Your task to perform on an android device: Set the phone to "Do not disturb". Image 0: 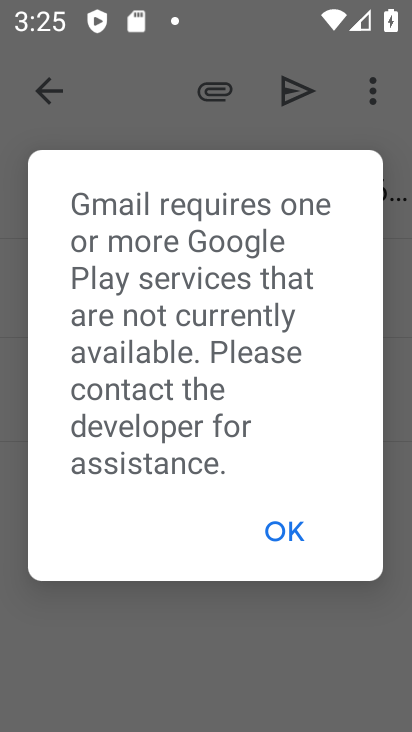
Step 0: press home button
Your task to perform on an android device: Set the phone to "Do not disturb". Image 1: 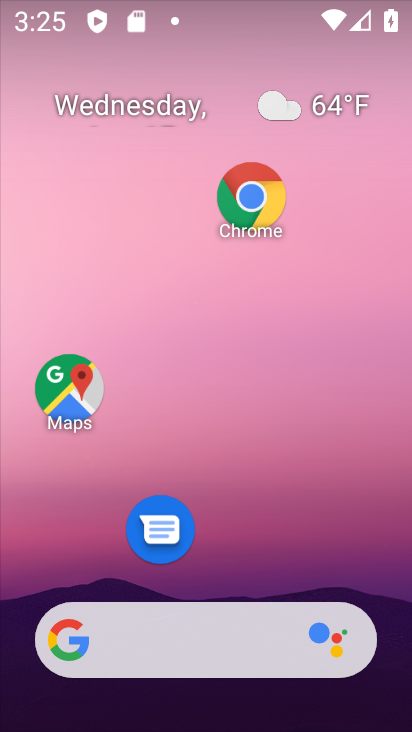
Step 1: drag from (187, 611) to (181, 182)
Your task to perform on an android device: Set the phone to "Do not disturb". Image 2: 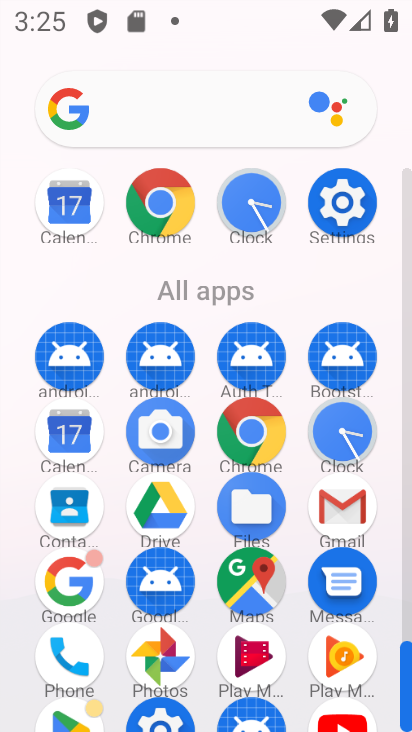
Step 2: click (328, 203)
Your task to perform on an android device: Set the phone to "Do not disturb". Image 3: 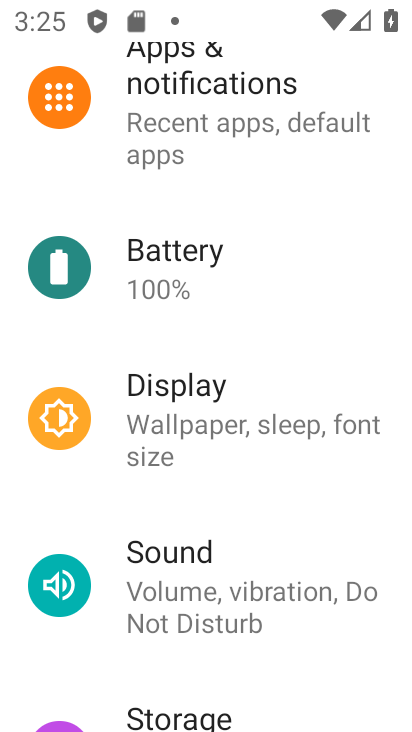
Step 3: click (169, 552)
Your task to perform on an android device: Set the phone to "Do not disturb". Image 4: 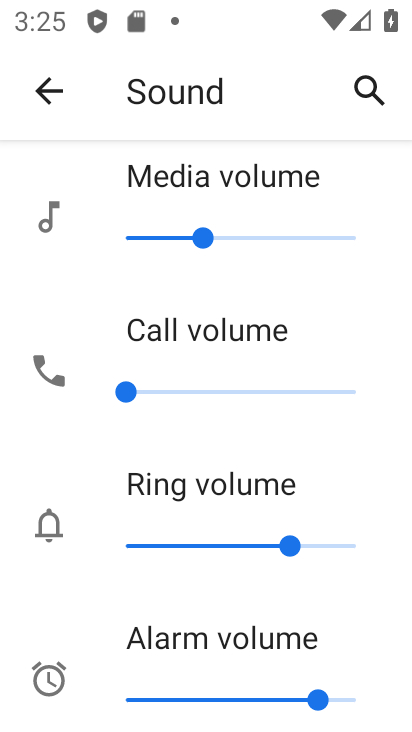
Step 4: drag from (191, 616) to (206, 270)
Your task to perform on an android device: Set the phone to "Do not disturb". Image 5: 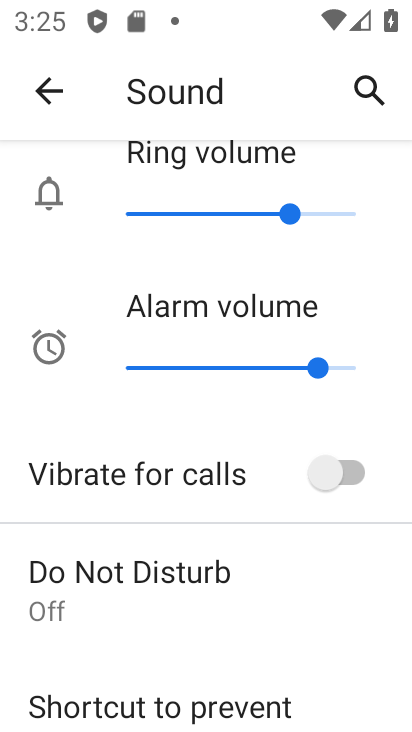
Step 5: click (147, 573)
Your task to perform on an android device: Set the phone to "Do not disturb". Image 6: 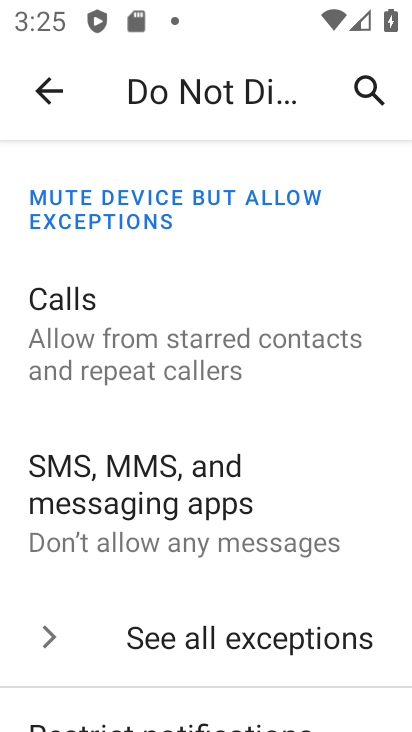
Step 6: drag from (215, 477) to (204, 110)
Your task to perform on an android device: Set the phone to "Do not disturb". Image 7: 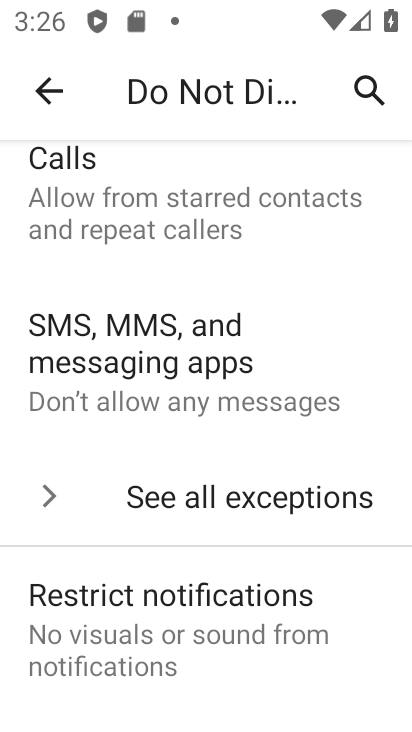
Step 7: drag from (158, 658) to (201, 348)
Your task to perform on an android device: Set the phone to "Do not disturb". Image 8: 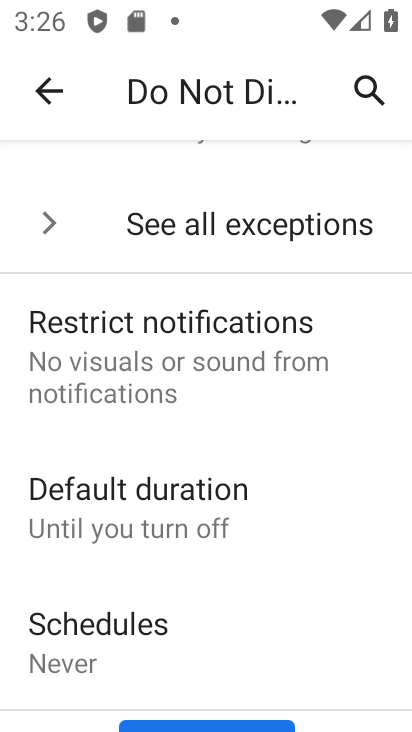
Step 8: drag from (198, 645) to (203, 393)
Your task to perform on an android device: Set the phone to "Do not disturb". Image 9: 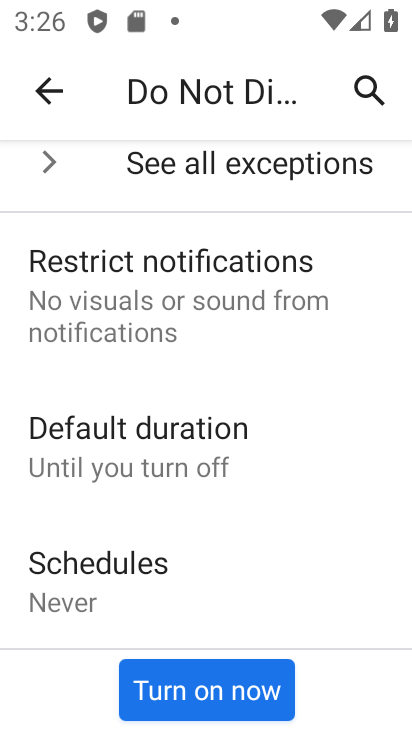
Step 9: click (198, 682)
Your task to perform on an android device: Set the phone to "Do not disturb". Image 10: 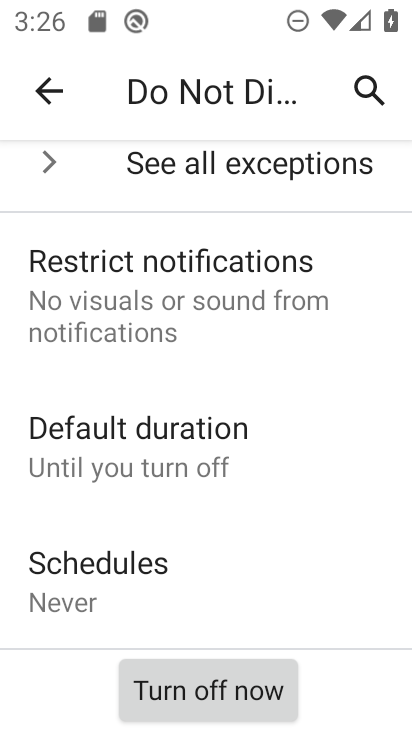
Step 10: task complete